Your task to perform on an android device: check battery use Image 0: 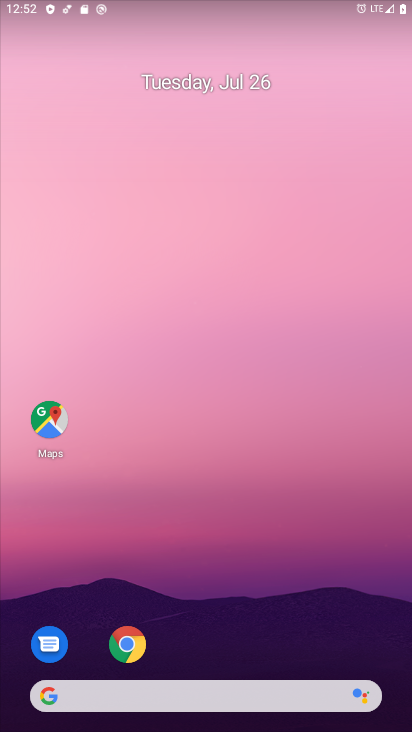
Step 0: drag from (229, 605) to (78, 123)
Your task to perform on an android device: check battery use Image 1: 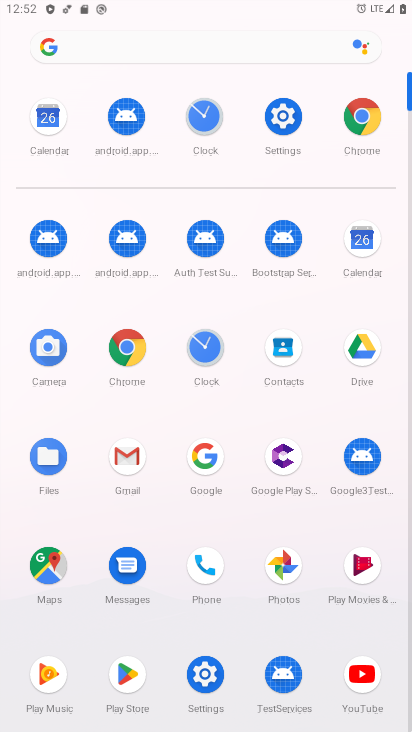
Step 1: click (291, 111)
Your task to perform on an android device: check battery use Image 2: 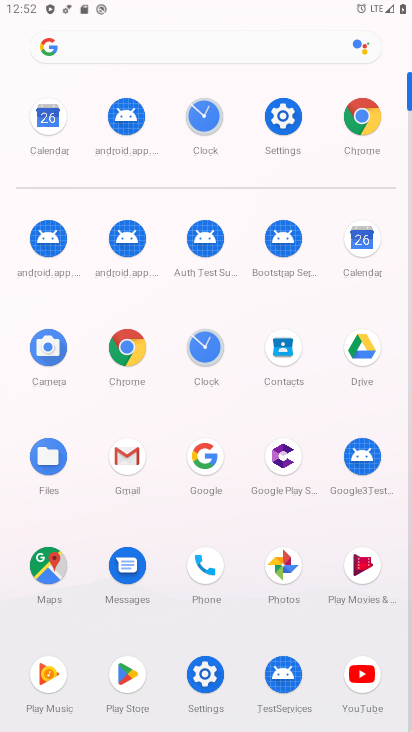
Step 2: click (291, 111)
Your task to perform on an android device: check battery use Image 3: 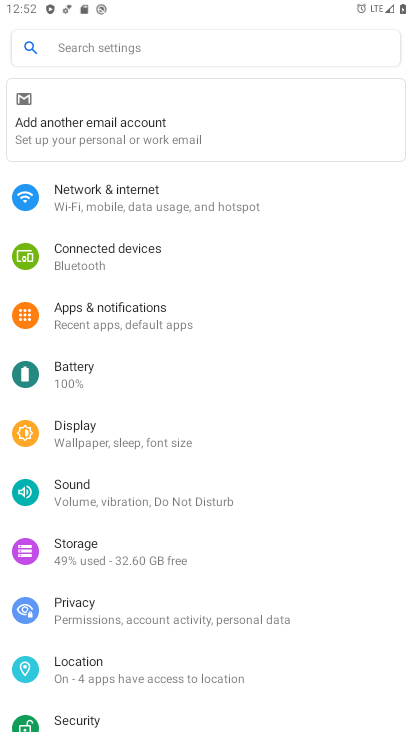
Step 3: click (114, 381)
Your task to perform on an android device: check battery use Image 4: 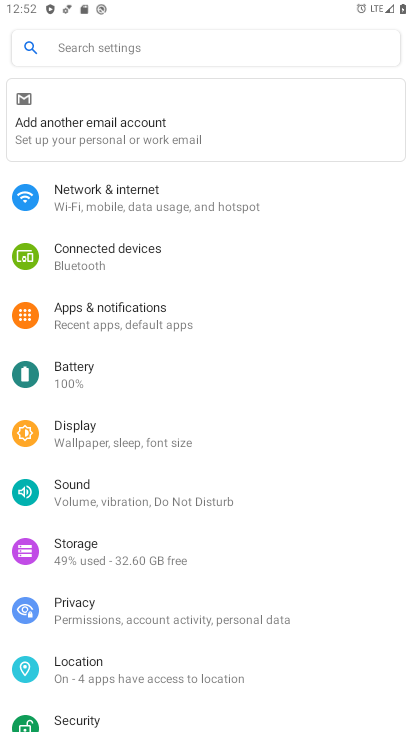
Step 4: click (114, 381)
Your task to perform on an android device: check battery use Image 5: 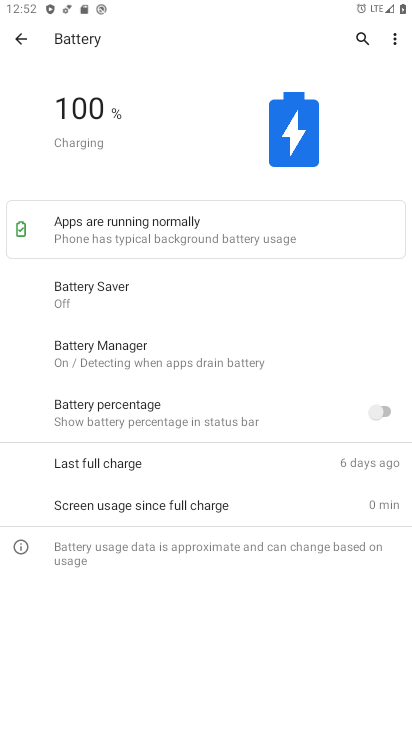
Step 5: click (396, 37)
Your task to perform on an android device: check battery use Image 6: 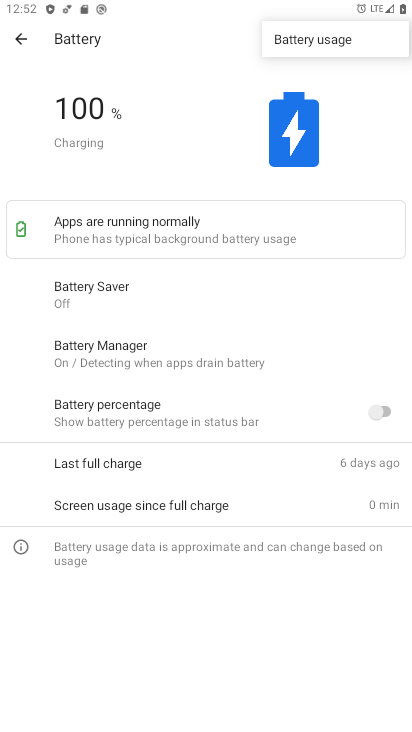
Step 6: click (339, 45)
Your task to perform on an android device: check battery use Image 7: 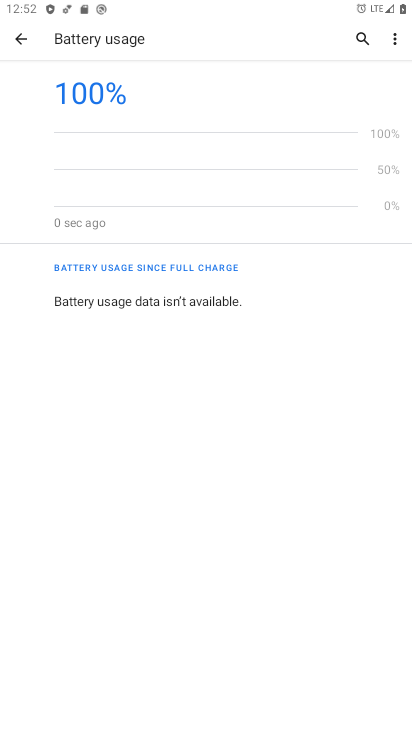
Step 7: task complete